Your task to perform on an android device: Toggle the flashlight Image 0: 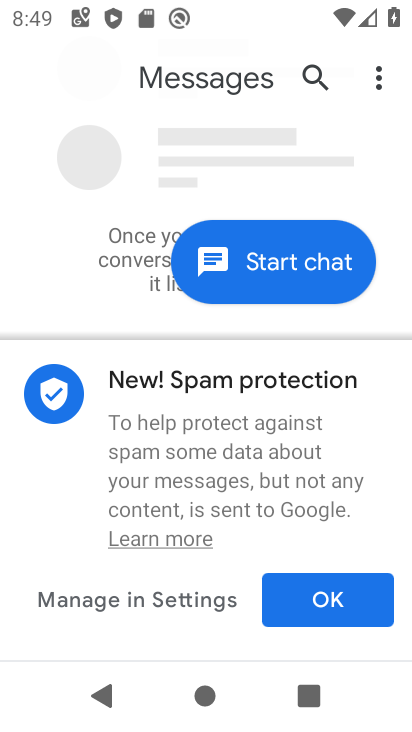
Step 0: press home button
Your task to perform on an android device: Toggle the flashlight Image 1: 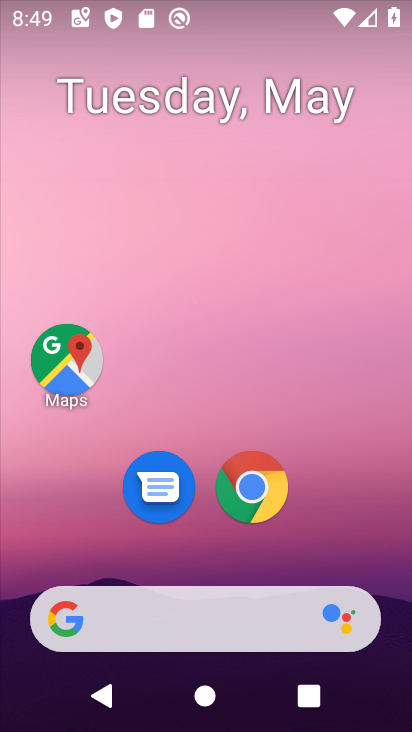
Step 1: drag from (292, 7) to (337, 465)
Your task to perform on an android device: Toggle the flashlight Image 2: 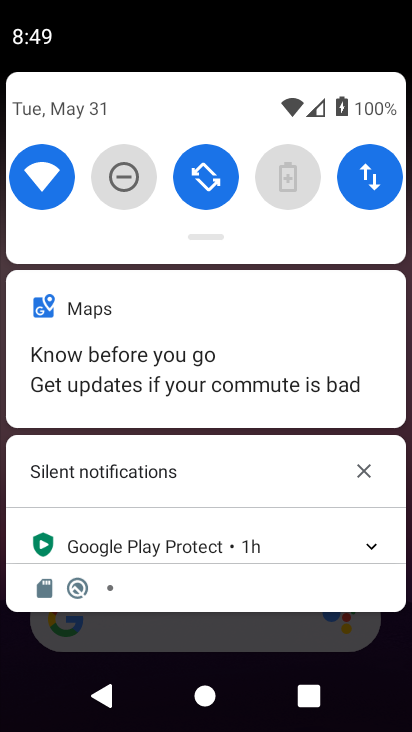
Step 2: drag from (238, 100) to (244, 368)
Your task to perform on an android device: Toggle the flashlight Image 3: 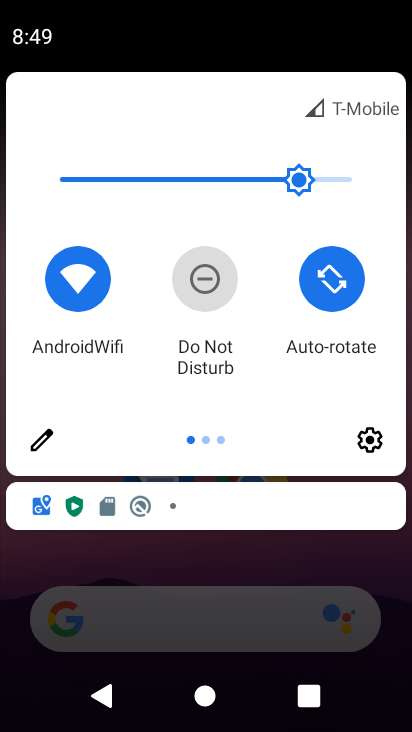
Step 3: click (48, 449)
Your task to perform on an android device: Toggle the flashlight Image 4: 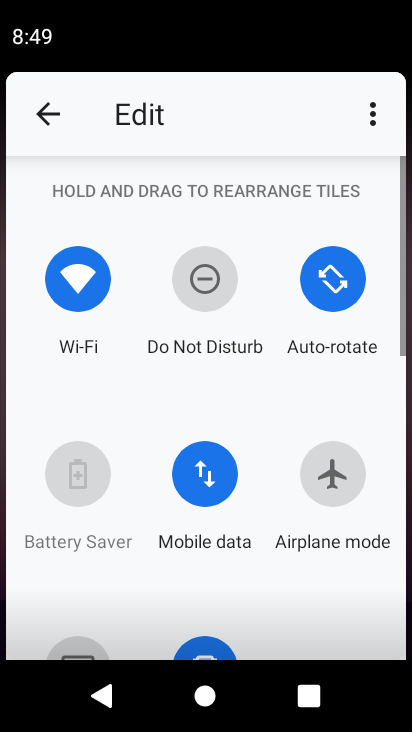
Step 4: task complete